Your task to perform on an android device: Open internet settings Image 0: 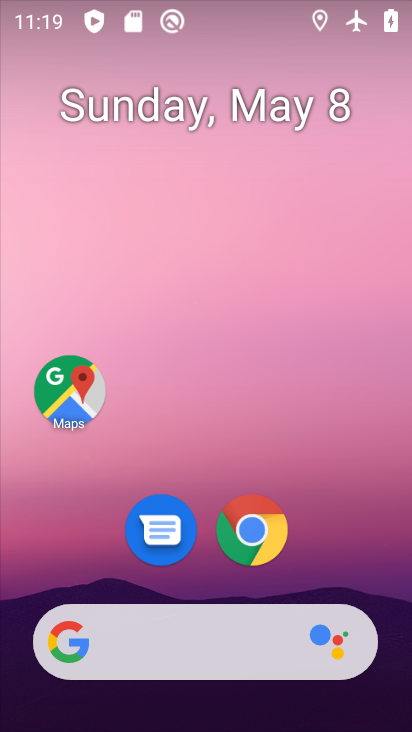
Step 0: drag from (341, 580) to (334, 20)
Your task to perform on an android device: Open internet settings Image 1: 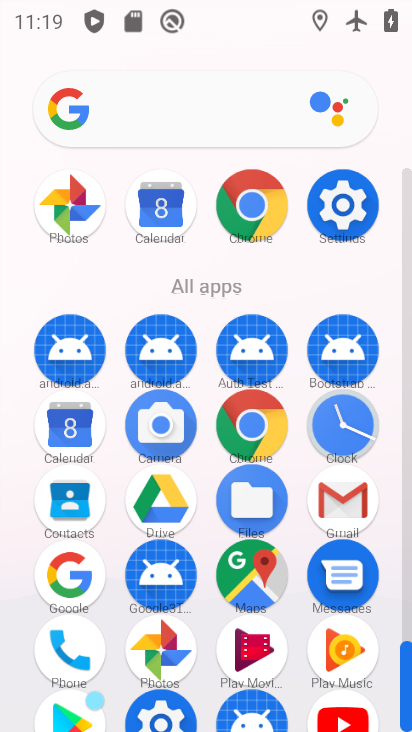
Step 1: click (348, 211)
Your task to perform on an android device: Open internet settings Image 2: 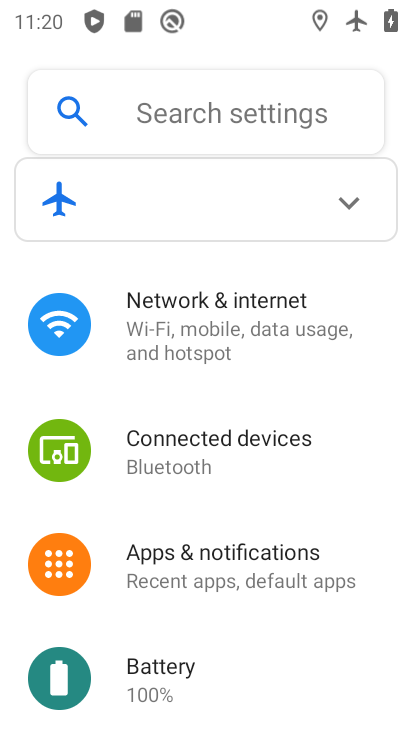
Step 2: click (279, 342)
Your task to perform on an android device: Open internet settings Image 3: 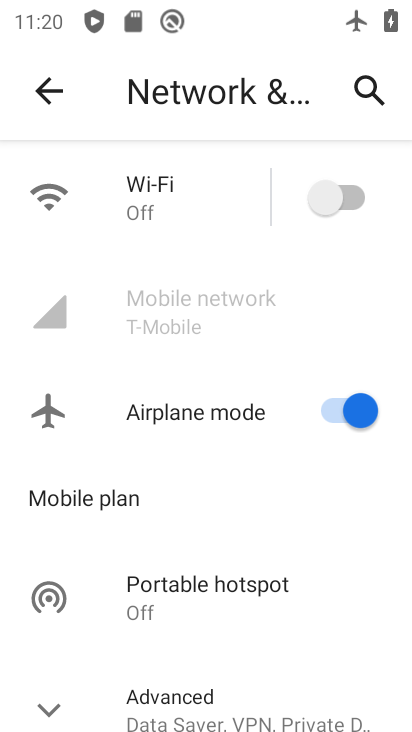
Step 3: task complete